Your task to perform on an android device: Open calendar and show me the fourth week of next month Image 0: 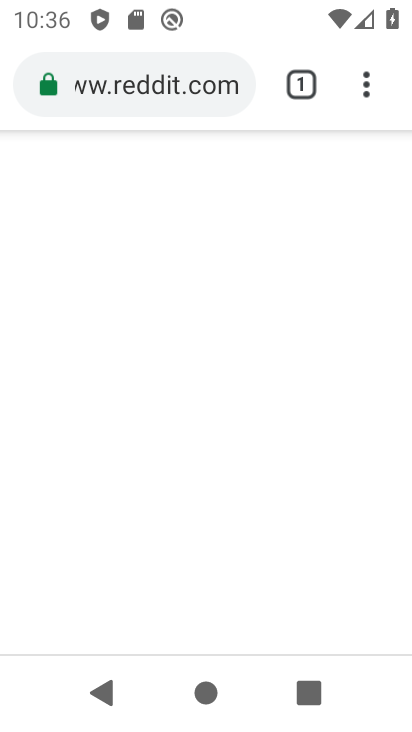
Step 0: press home button
Your task to perform on an android device: Open calendar and show me the fourth week of next month Image 1: 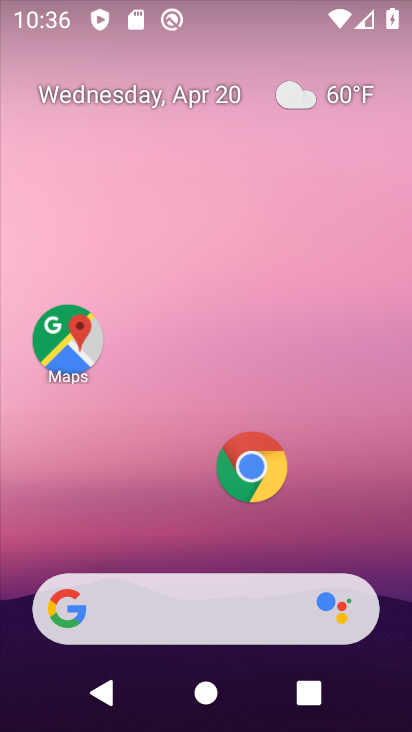
Step 1: drag from (344, 537) to (239, 69)
Your task to perform on an android device: Open calendar and show me the fourth week of next month Image 2: 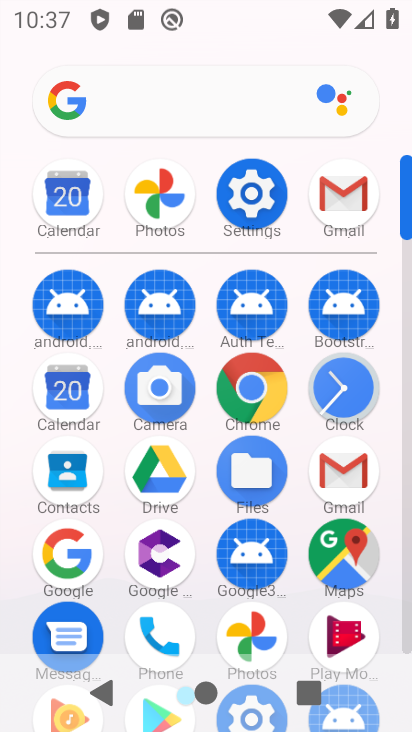
Step 2: click (71, 388)
Your task to perform on an android device: Open calendar and show me the fourth week of next month Image 3: 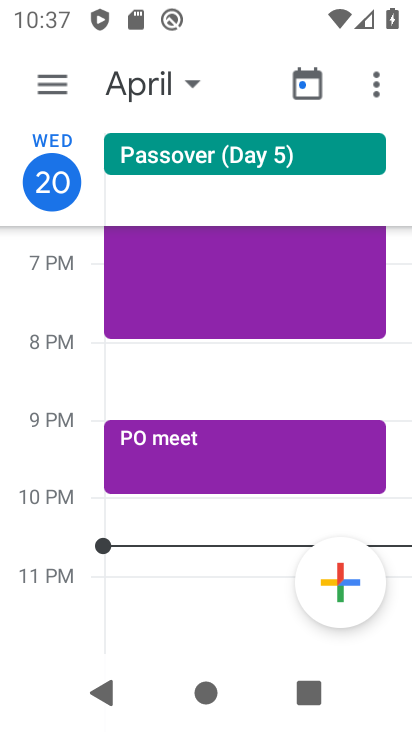
Step 3: click (126, 71)
Your task to perform on an android device: Open calendar and show me the fourth week of next month Image 4: 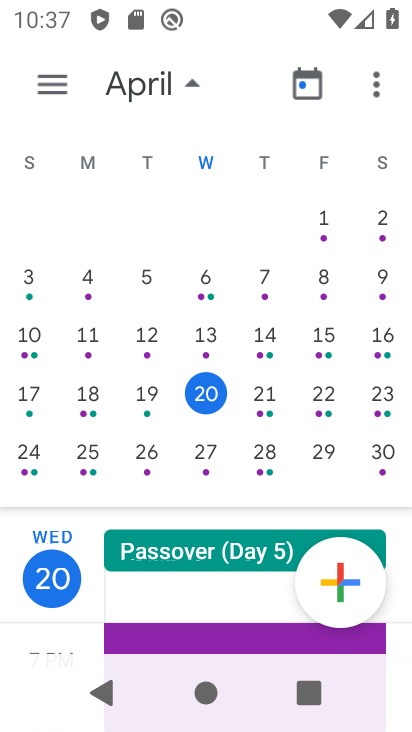
Step 4: drag from (361, 347) to (42, 431)
Your task to perform on an android device: Open calendar and show me the fourth week of next month Image 5: 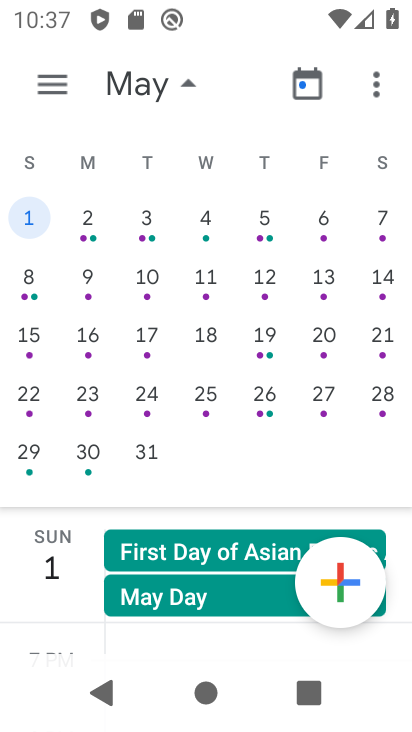
Step 5: click (38, 397)
Your task to perform on an android device: Open calendar and show me the fourth week of next month Image 6: 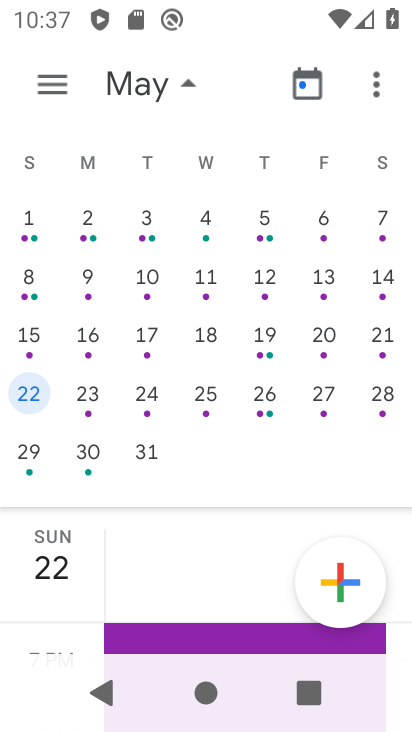
Step 6: task complete